Your task to perform on an android device: turn notification dots off Image 0: 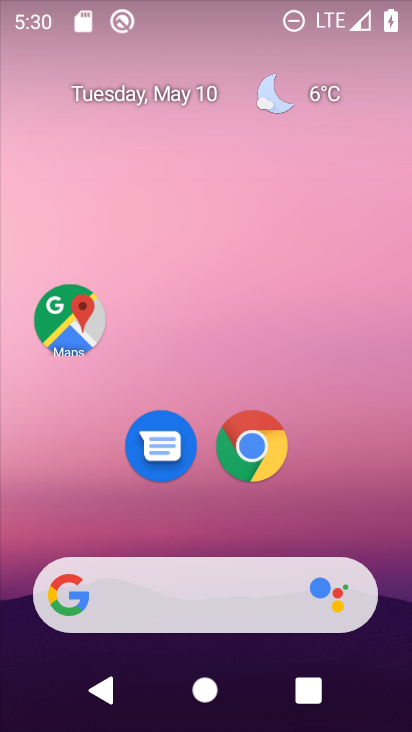
Step 0: drag from (317, 450) to (250, 150)
Your task to perform on an android device: turn notification dots off Image 1: 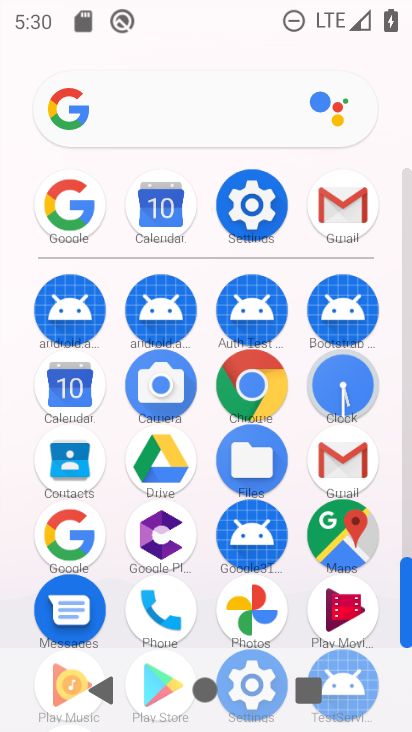
Step 1: click (261, 201)
Your task to perform on an android device: turn notification dots off Image 2: 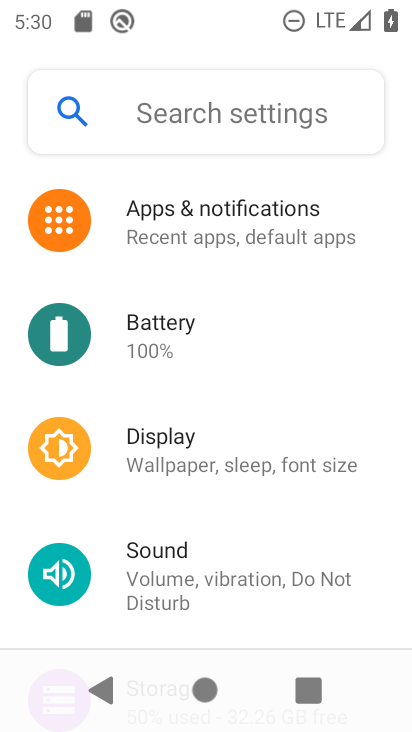
Step 2: drag from (273, 619) to (243, 234)
Your task to perform on an android device: turn notification dots off Image 3: 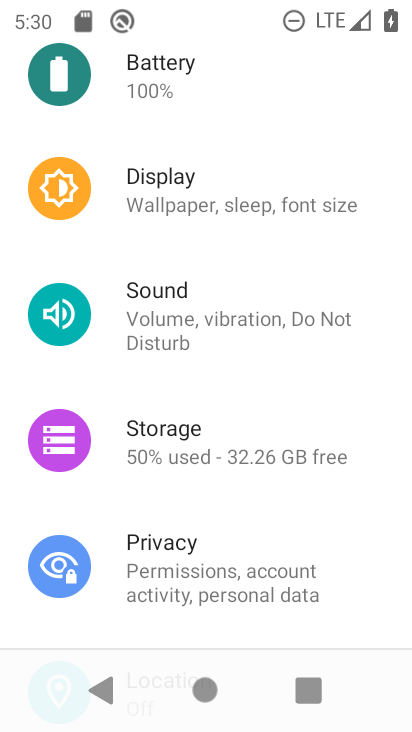
Step 3: drag from (220, 241) to (215, 531)
Your task to perform on an android device: turn notification dots off Image 4: 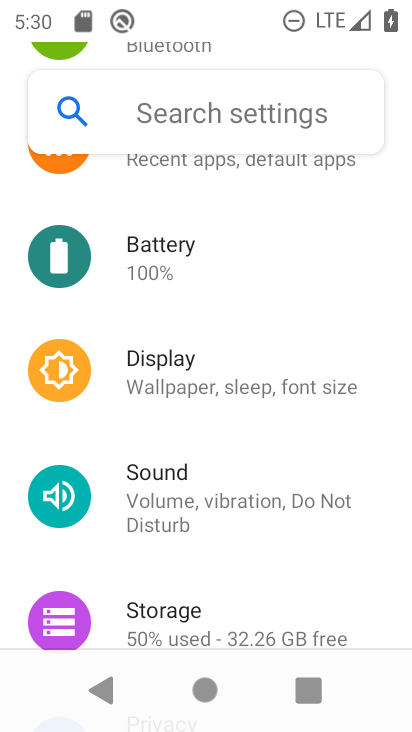
Step 4: click (219, 161)
Your task to perform on an android device: turn notification dots off Image 5: 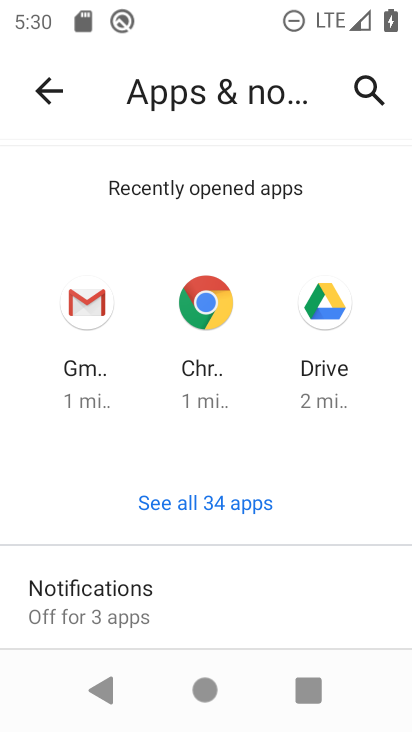
Step 5: drag from (244, 564) to (233, 257)
Your task to perform on an android device: turn notification dots off Image 6: 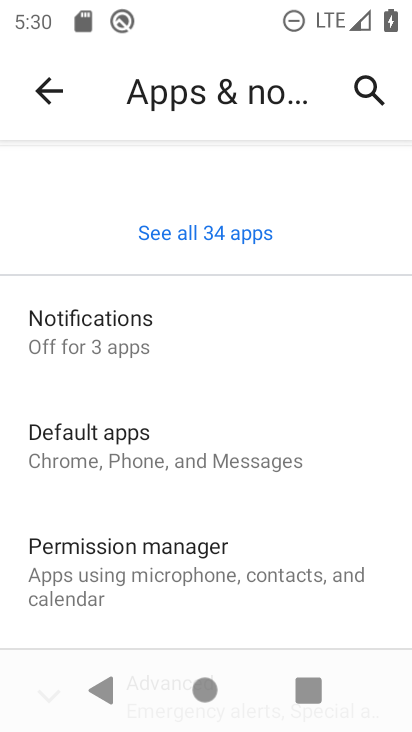
Step 6: click (149, 323)
Your task to perform on an android device: turn notification dots off Image 7: 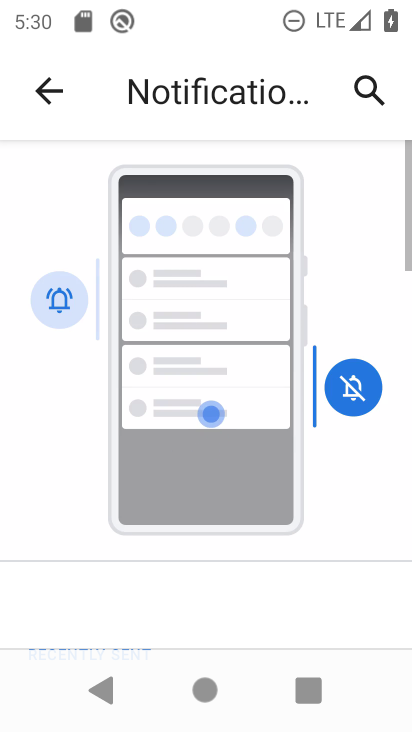
Step 7: drag from (230, 537) to (225, 175)
Your task to perform on an android device: turn notification dots off Image 8: 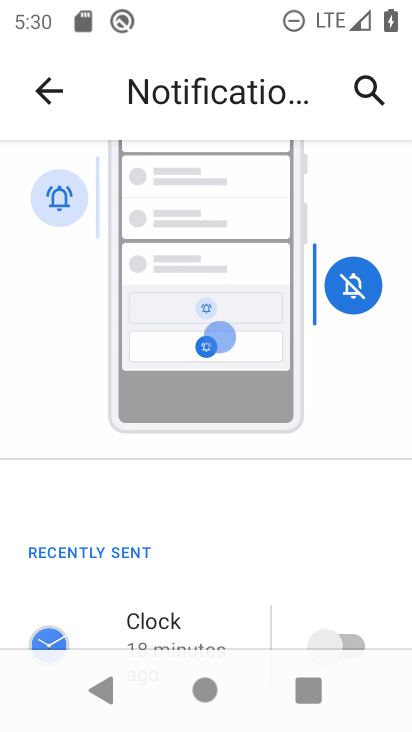
Step 8: drag from (222, 537) to (233, 212)
Your task to perform on an android device: turn notification dots off Image 9: 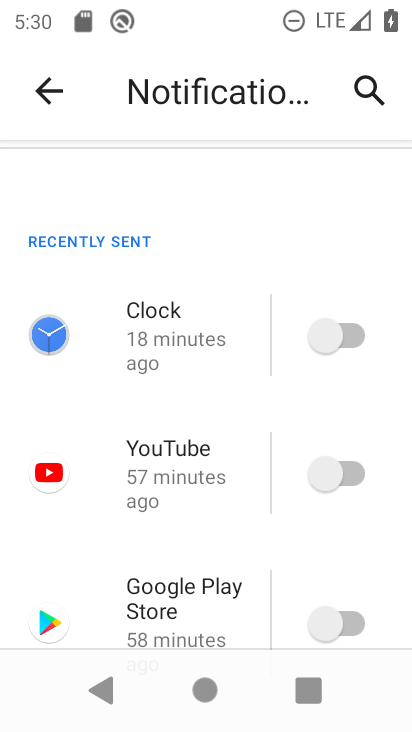
Step 9: drag from (234, 588) to (221, 198)
Your task to perform on an android device: turn notification dots off Image 10: 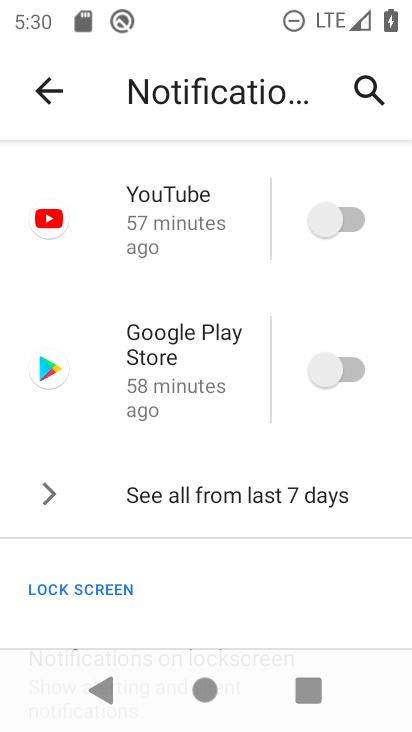
Step 10: drag from (210, 539) to (211, 191)
Your task to perform on an android device: turn notification dots off Image 11: 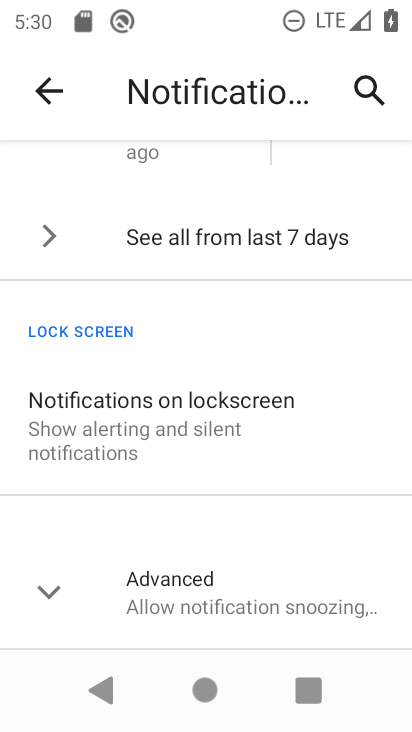
Step 11: drag from (229, 533) to (239, 217)
Your task to perform on an android device: turn notification dots off Image 12: 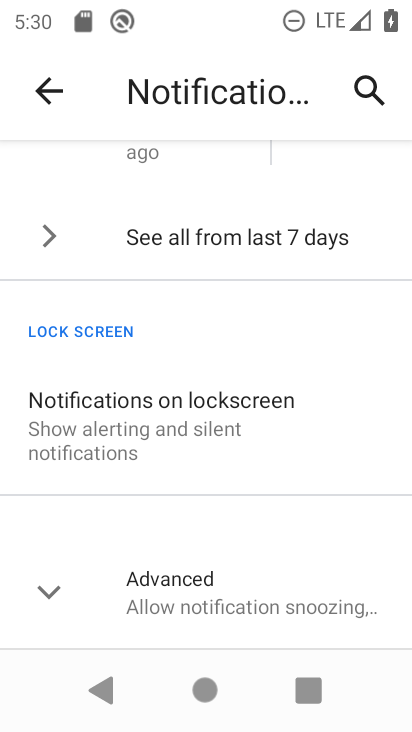
Step 12: click (200, 565)
Your task to perform on an android device: turn notification dots off Image 13: 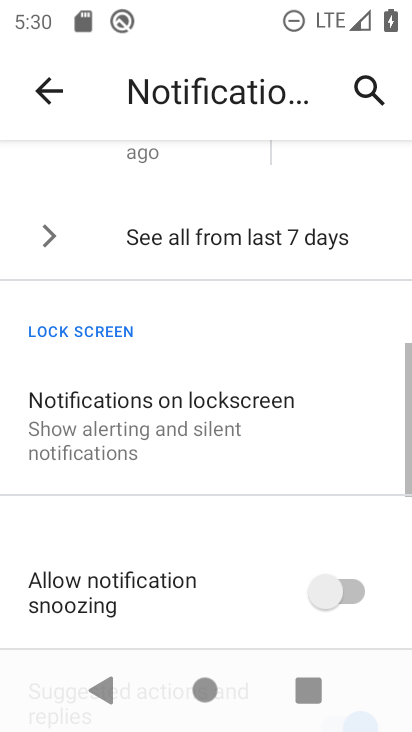
Step 13: drag from (225, 547) to (182, 212)
Your task to perform on an android device: turn notification dots off Image 14: 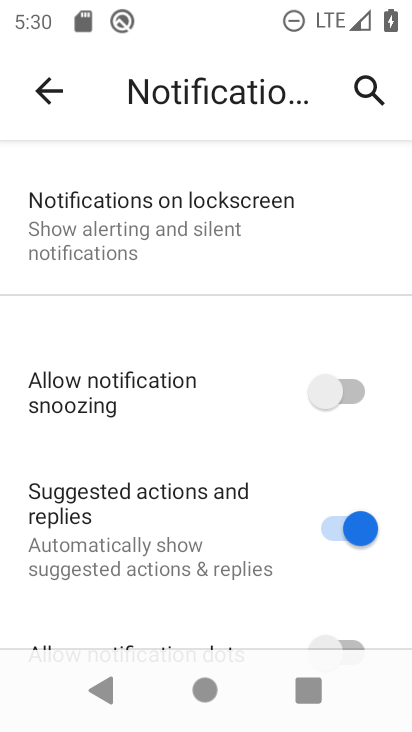
Step 14: drag from (191, 500) to (215, 187)
Your task to perform on an android device: turn notification dots off Image 15: 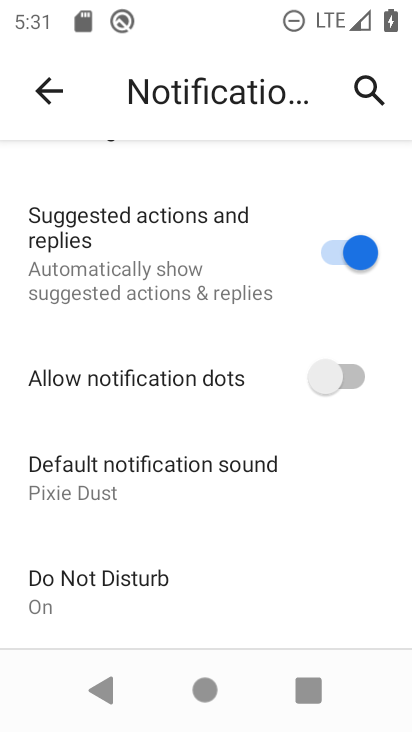
Step 15: click (348, 387)
Your task to perform on an android device: turn notification dots off Image 16: 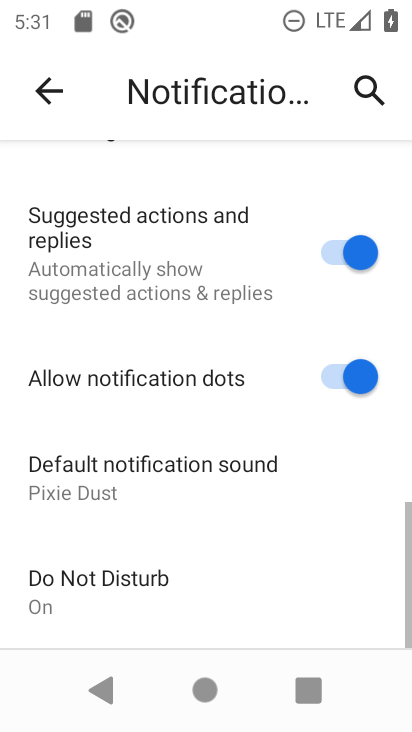
Step 16: click (349, 386)
Your task to perform on an android device: turn notification dots off Image 17: 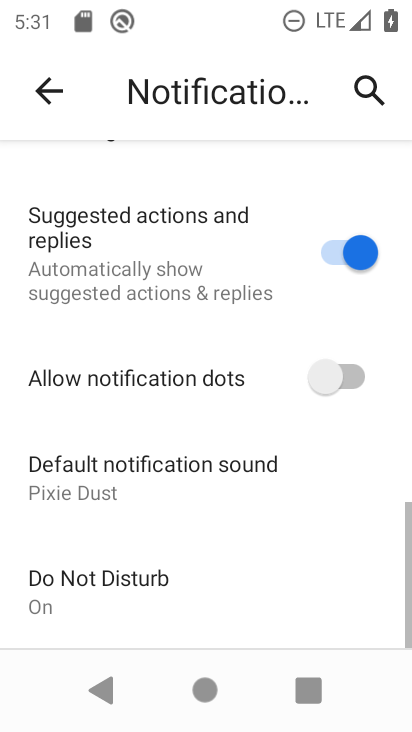
Step 17: task complete